Your task to perform on an android device: Check the weather Image 0: 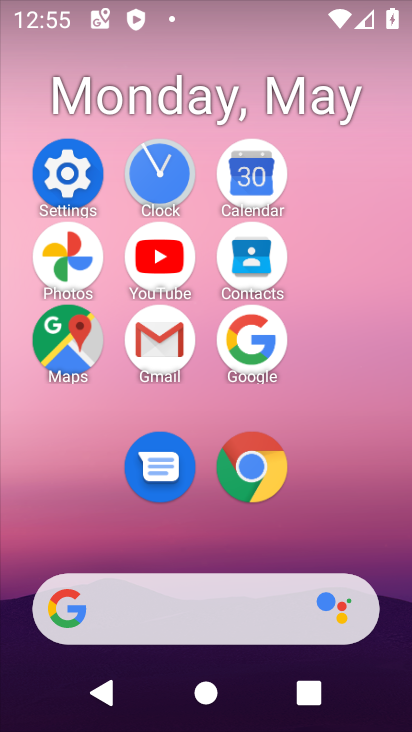
Step 0: click (244, 341)
Your task to perform on an android device: Check the weather Image 1: 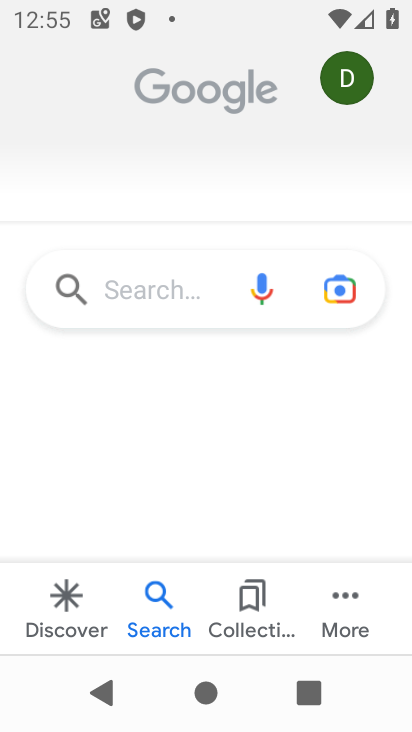
Step 1: click (148, 284)
Your task to perform on an android device: Check the weather Image 2: 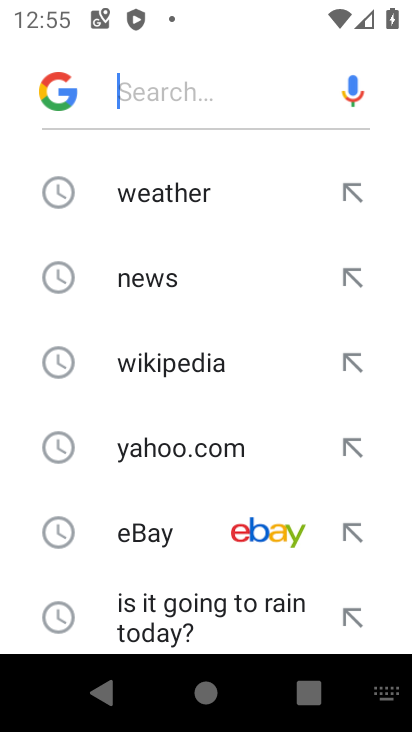
Step 2: click (180, 215)
Your task to perform on an android device: Check the weather Image 3: 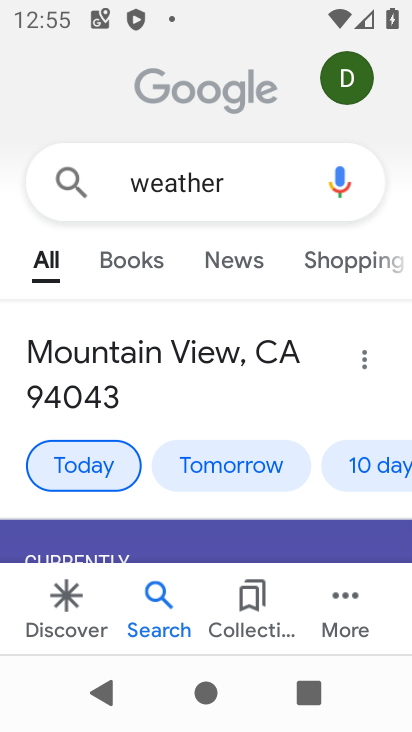
Step 3: task complete